Your task to perform on an android device: change the clock display to digital Image 0: 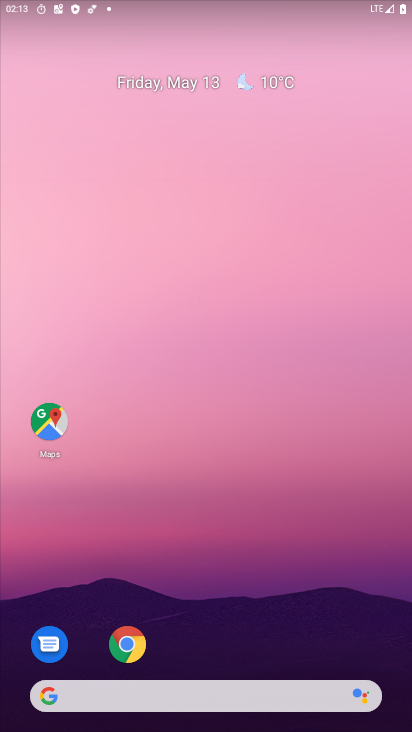
Step 0: drag from (138, 634) to (250, 12)
Your task to perform on an android device: change the clock display to digital Image 1: 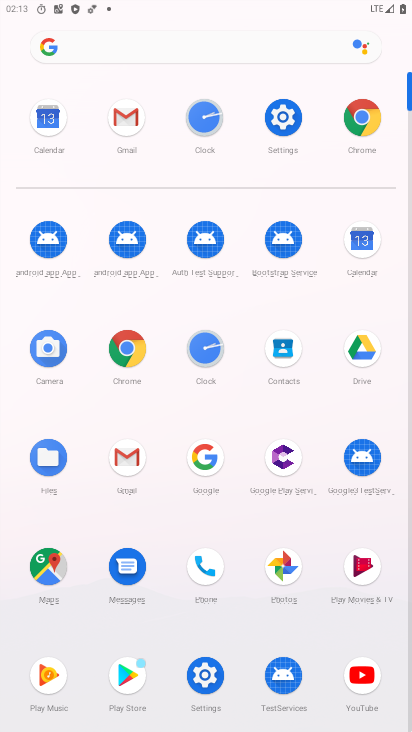
Step 1: click (208, 351)
Your task to perform on an android device: change the clock display to digital Image 2: 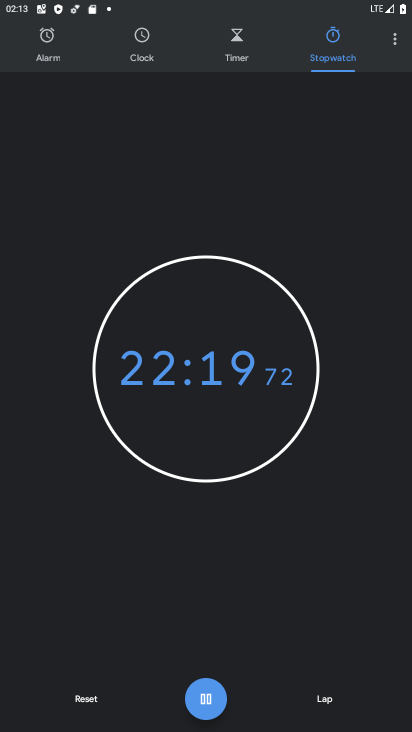
Step 2: click (398, 41)
Your task to perform on an android device: change the clock display to digital Image 3: 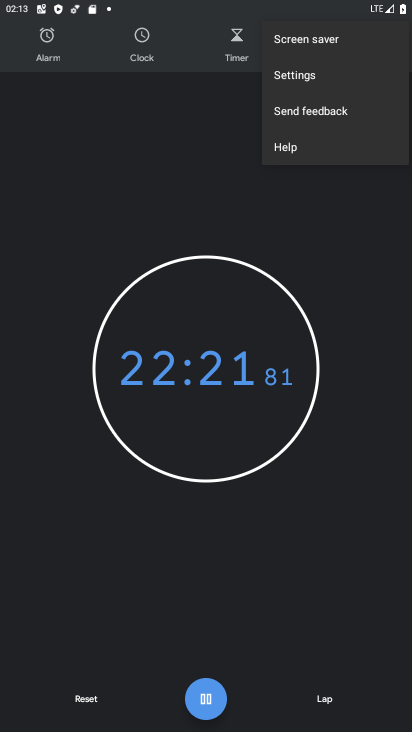
Step 3: click (313, 81)
Your task to perform on an android device: change the clock display to digital Image 4: 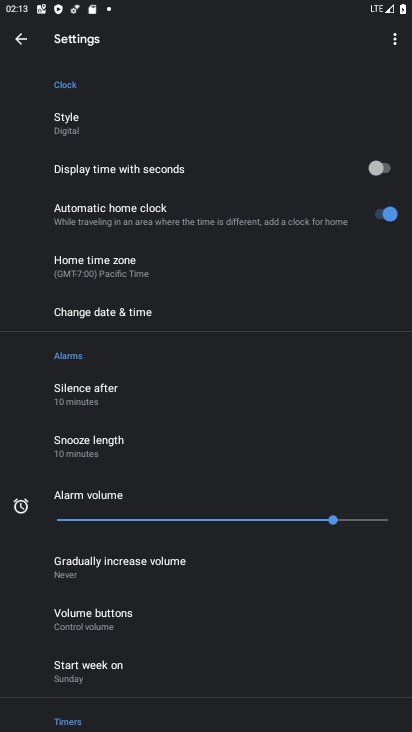
Step 4: task complete